Your task to perform on an android device: see creations saved in the google photos Image 0: 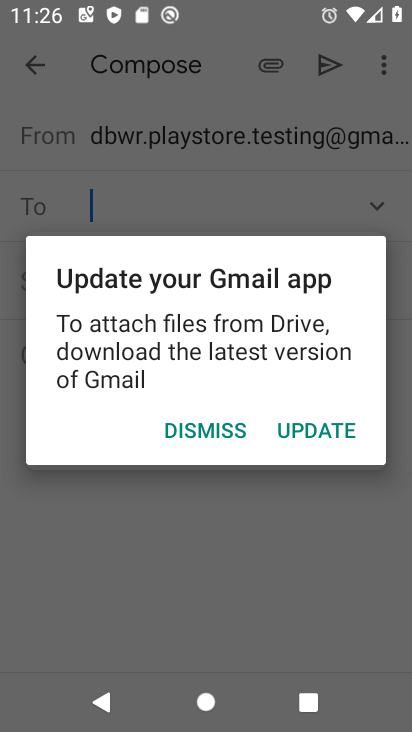
Step 0: press home button
Your task to perform on an android device: see creations saved in the google photos Image 1: 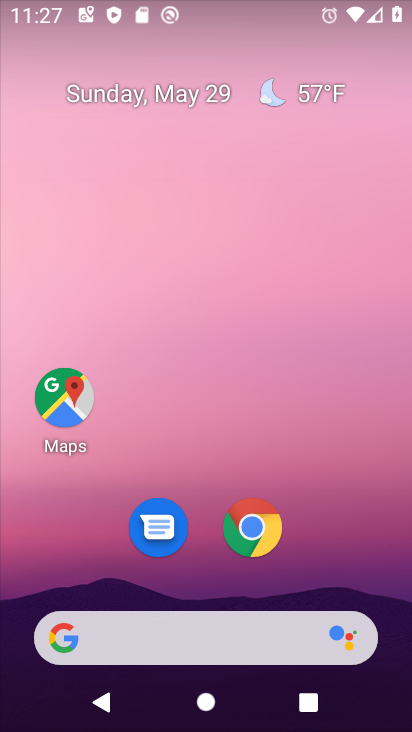
Step 1: drag from (210, 577) to (240, 172)
Your task to perform on an android device: see creations saved in the google photos Image 2: 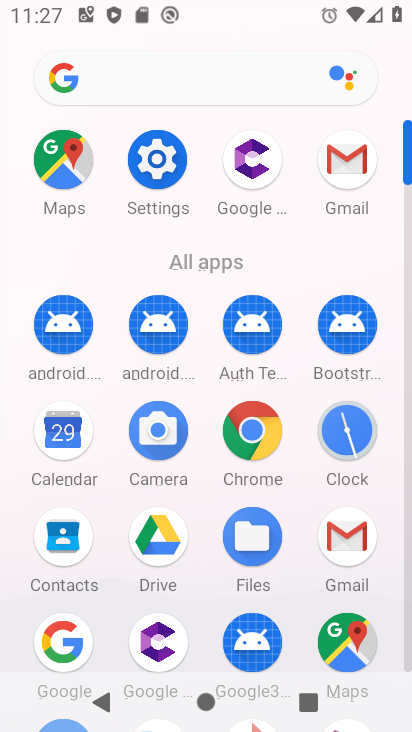
Step 2: drag from (205, 576) to (274, 150)
Your task to perform on an android device: see creations saved in the google photos Image 3: 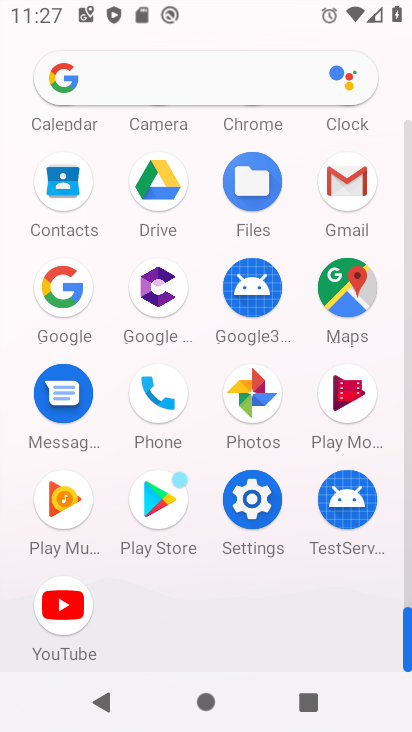
Step 3: click (249, 417)
Your task to perform on an android device: see creations saved in the google photos Image 4: 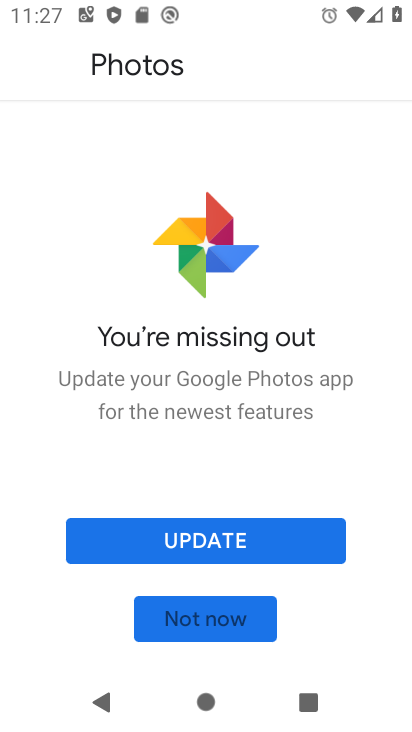
Step 4: click (181, 626)
Your task to perform on an android device: see creations saved in the google photos Image 5: 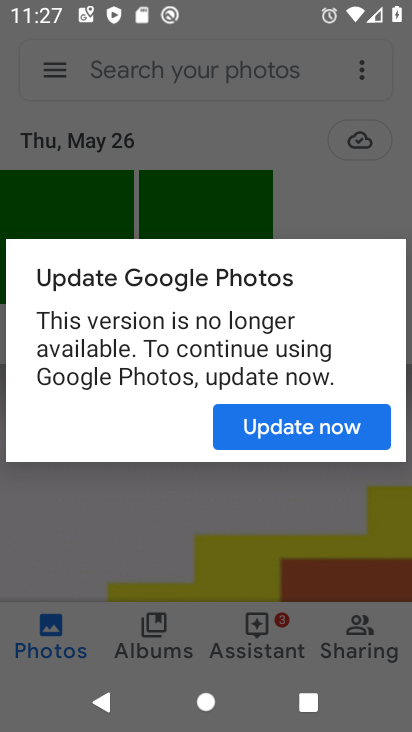
Step 5: click (324, 435)
Your task to perform on an android device: see creations saved in the google photos Image 6: 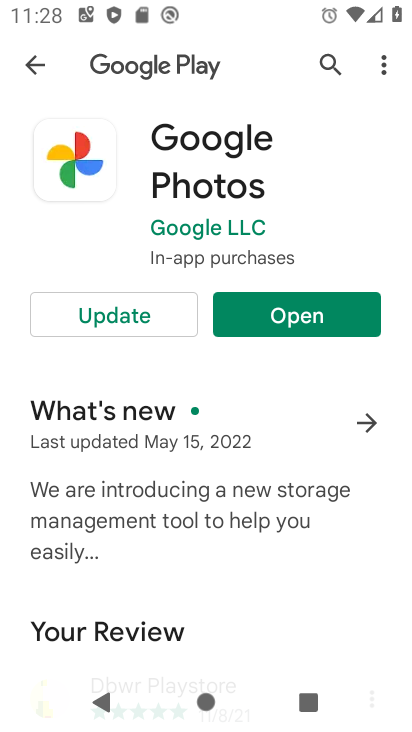
Step 6: click (283, 326)
Your task to perform on an android device: see creations saved in the google photos Image 7: 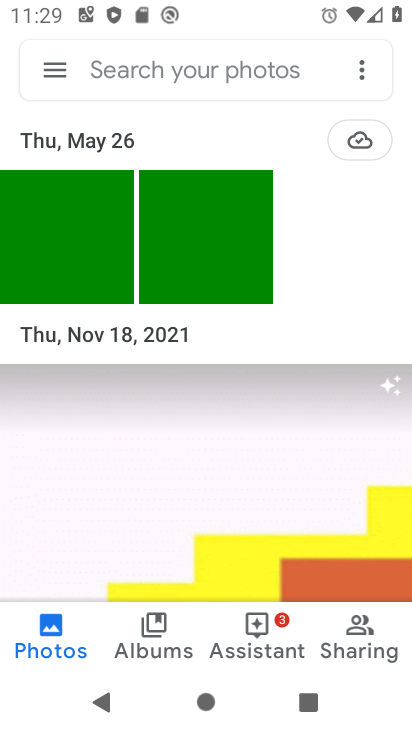
Step 7: task complete